Your task to perform on an android device: move an email to a new category in the gmail app Image 0: 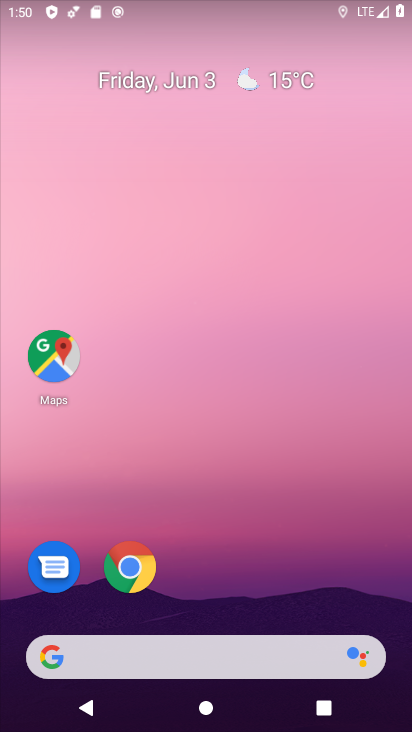
Step 0: drag from (225, 628) to (228, 18)
Your task to perform on an android device: move an email to a new category in the gmail app Image 1: 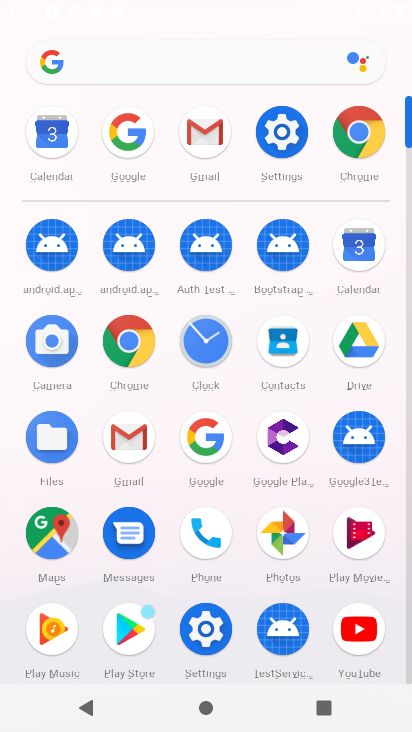
Step 1: click (207, 150)
Your task to perform on an android device: move an email to a new category in the gmail app Image 2: 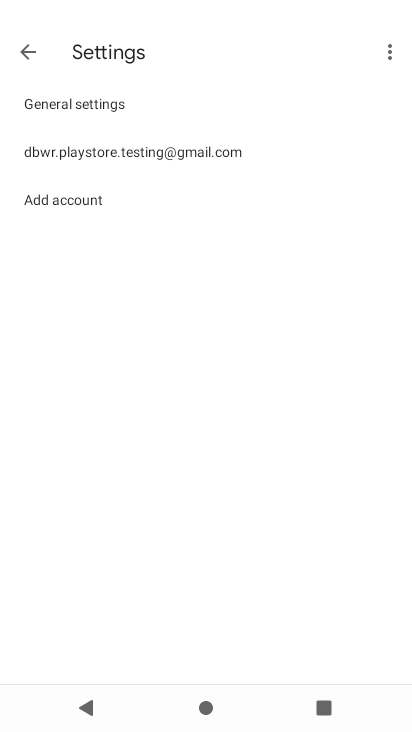
Step 2: click (25, 56)
Your task to perform on an android device: move an email to a new category in the gmail app Image 3: 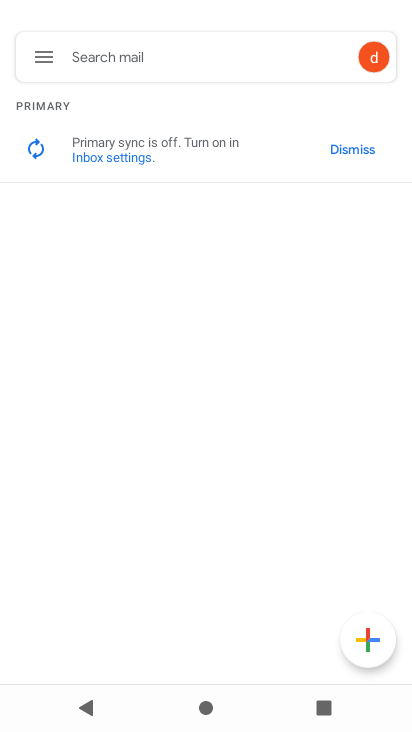
Step 3: task complete